Your task to perform on an android device: install app "The Home Depot" Image 0: 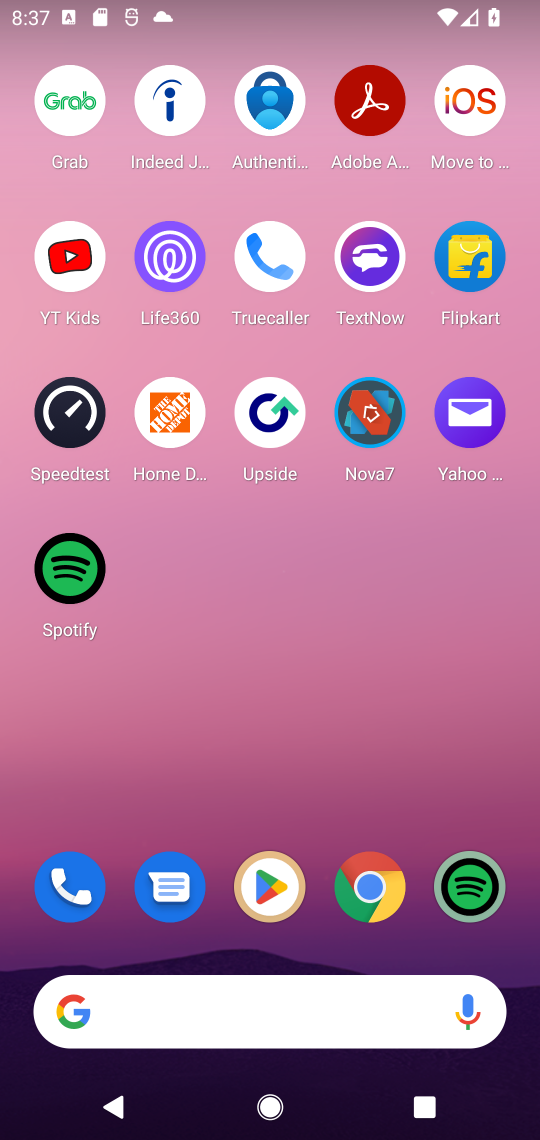
Step 0: click (274, 885)
Your task to perform on an android device: install app "The Home Depot" Image 1: 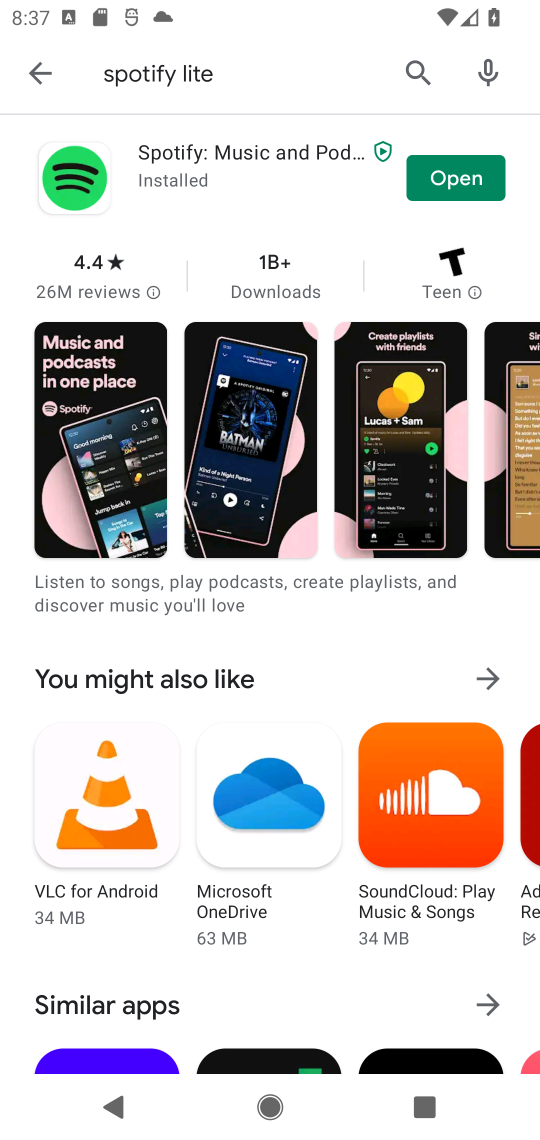
Step 1: click (406, 71)
Your task to perform on an android device: install app "The Home Depot" Image 2: 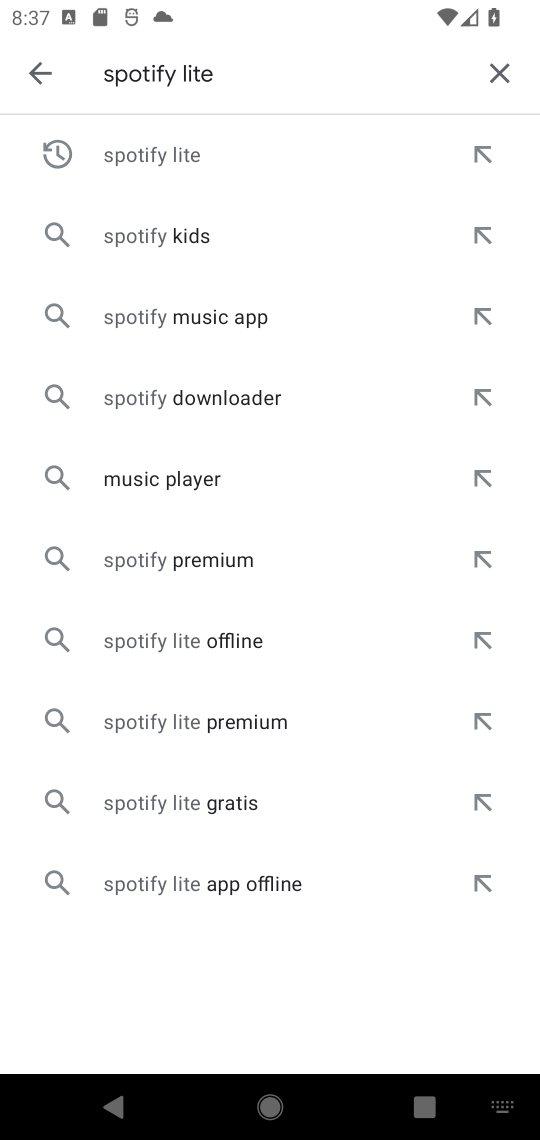
Step 2: click (500, 66)
Your task to perform on an android device: install app "The Home Depot" Image 3: 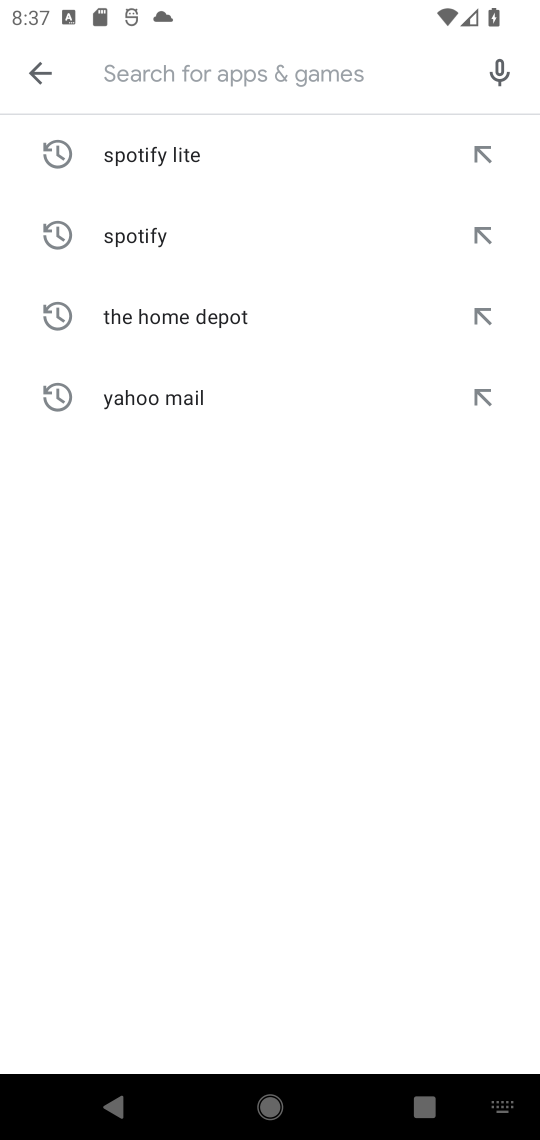
Step 3: type "The Home Depot"
Your task to perform on an android device: install app "The Home Depot" Image 4: 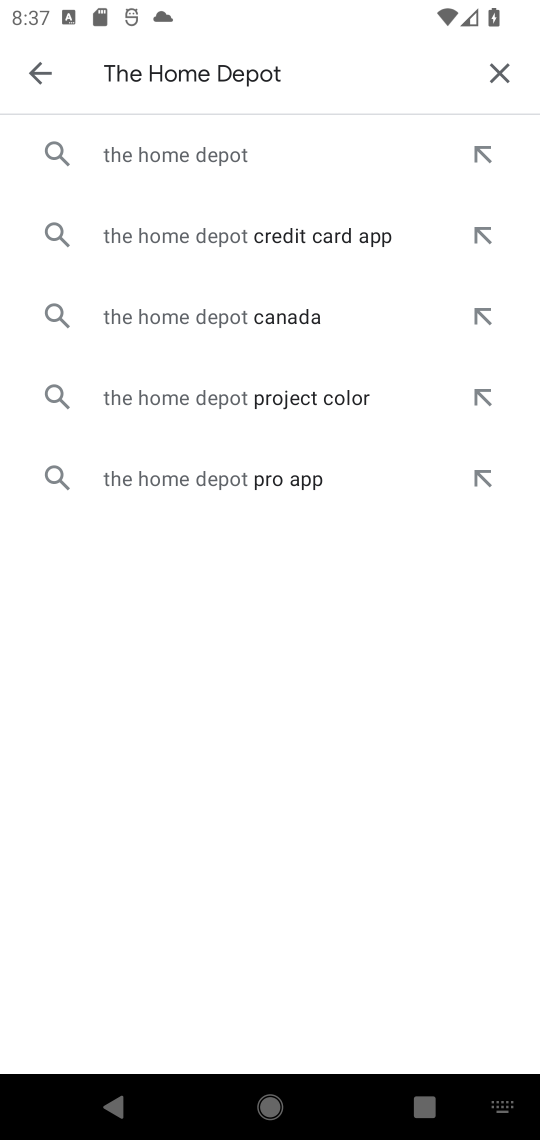
Step 4: click (138, 157)
Your task to perform on an android device: install app "The Home Depot" Image 5: 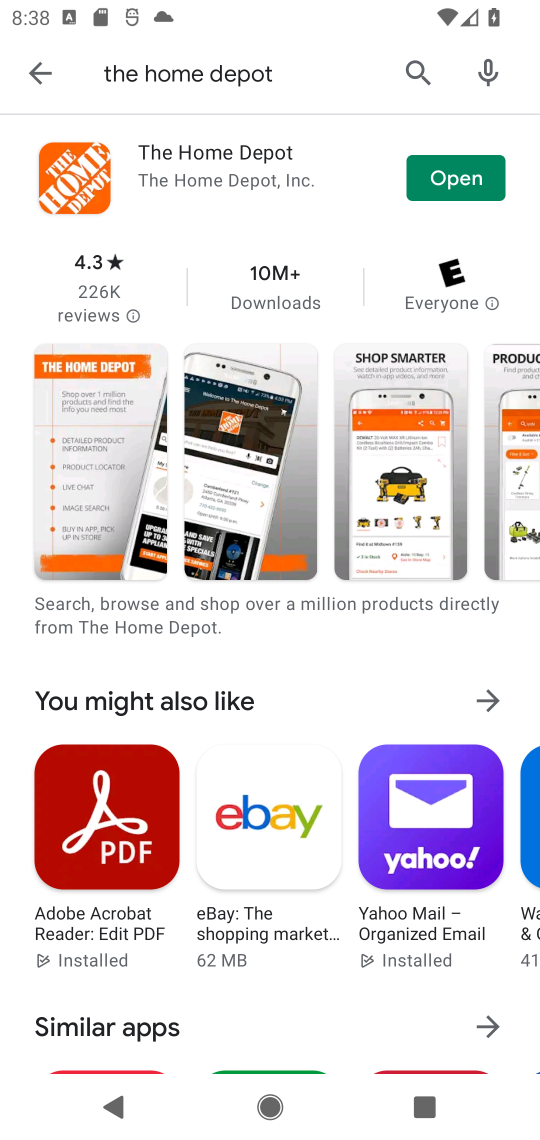
Step 5: click (196, 178)
Your task to perform on an android device: install app "The Home Depot" Image 6: 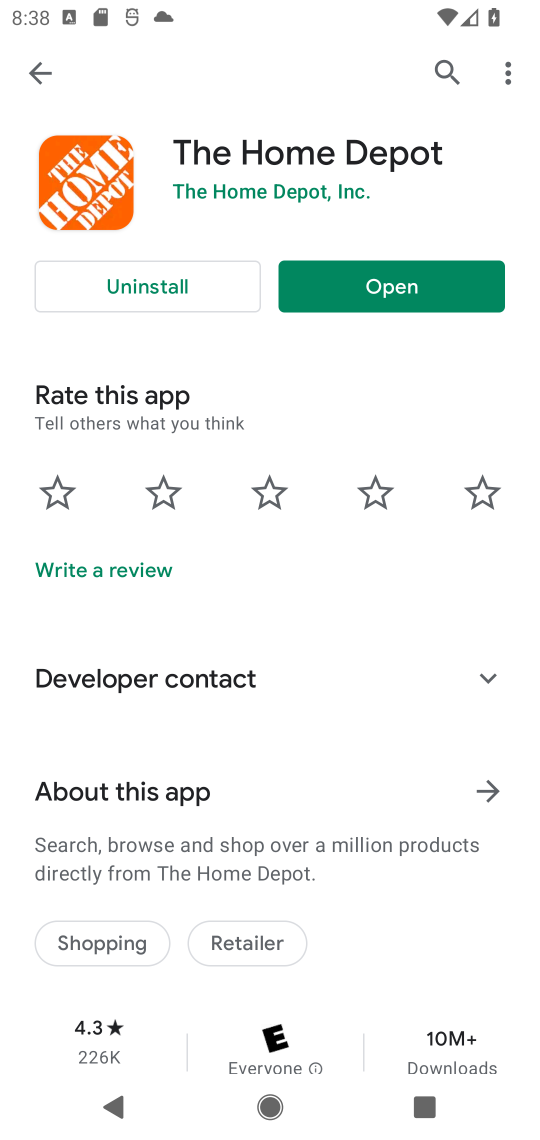
Step 6: task complete